Your task to perform on an android device: toggle sleep mode Image 0: 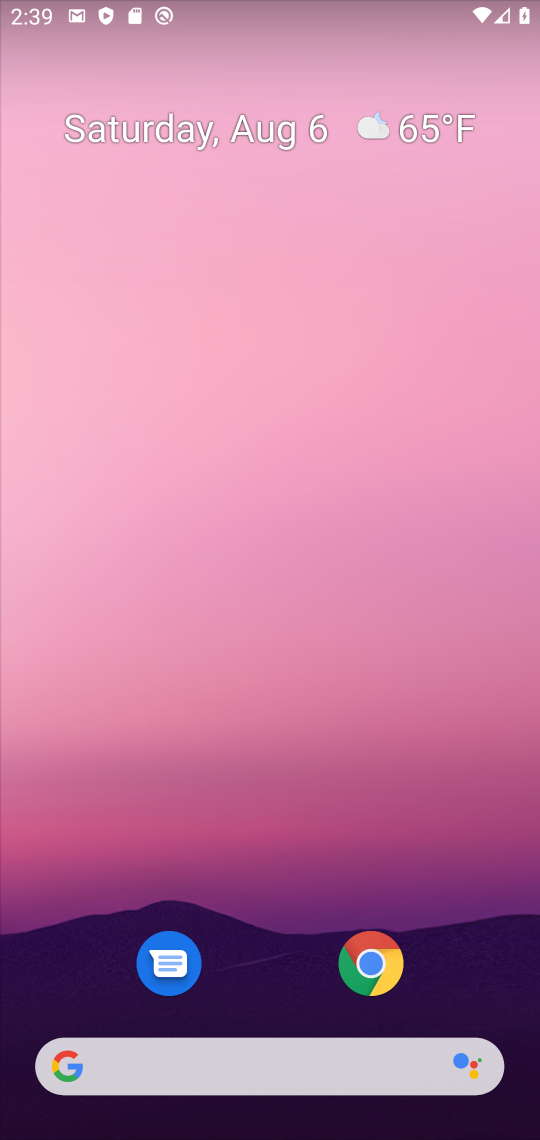
Step 0: drag from (474, 2) to (518, 768)
Your task to perform on an android device: toggle sleep mode Image 1: 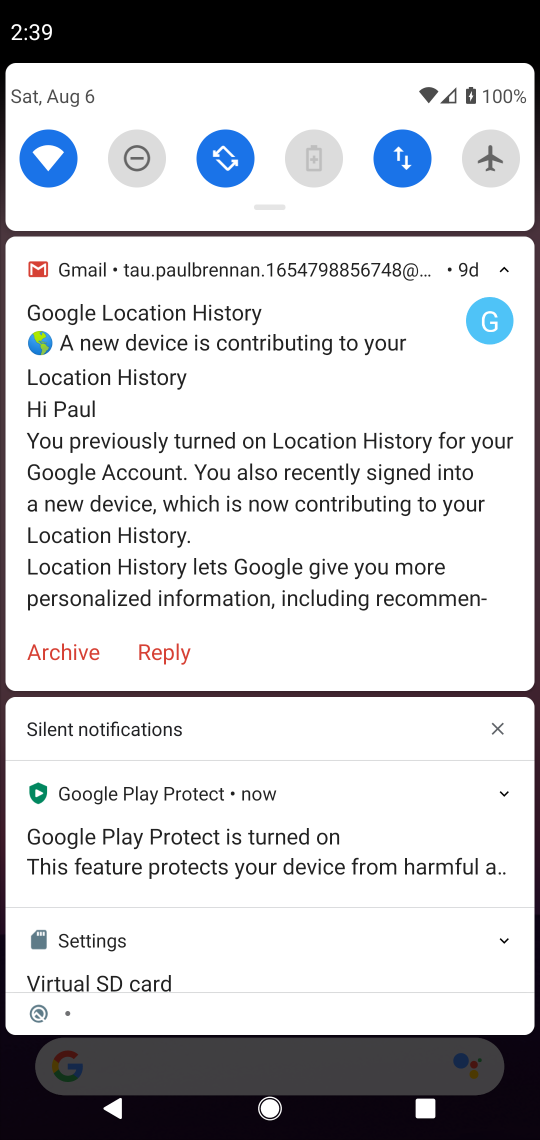
Step 1: drag from (318, 230) to (344, 1040)
Your task to perform on an android device: toggle sleep mode Image 2: 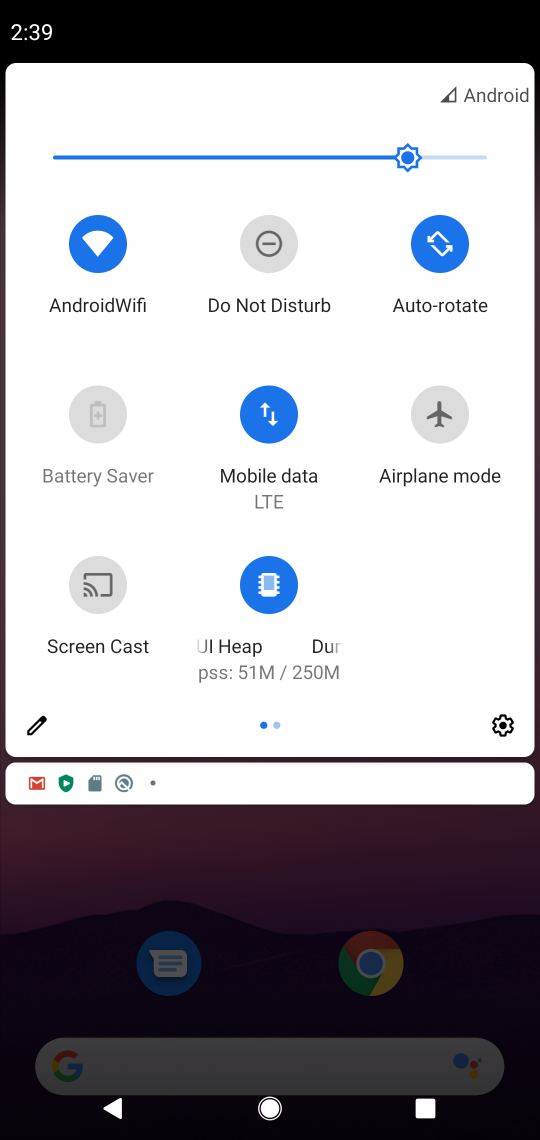
Step 2: click (42, 730)
Your task to perform on an android device: toggle sleep mode Image 3: 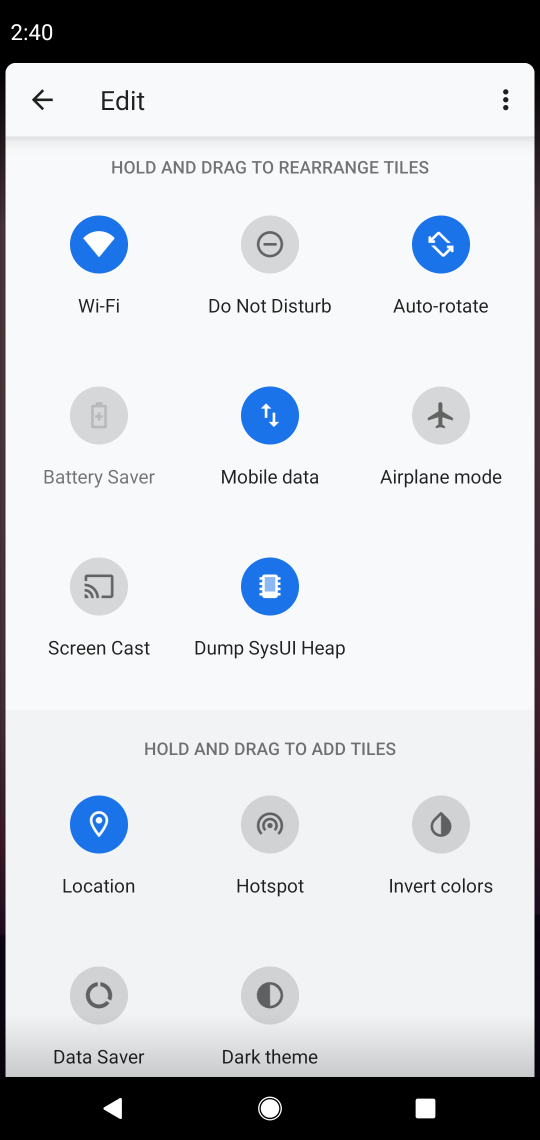
Step 3: task complete